Your task to perform on an android device: turn on bluetooth scan Image 0: 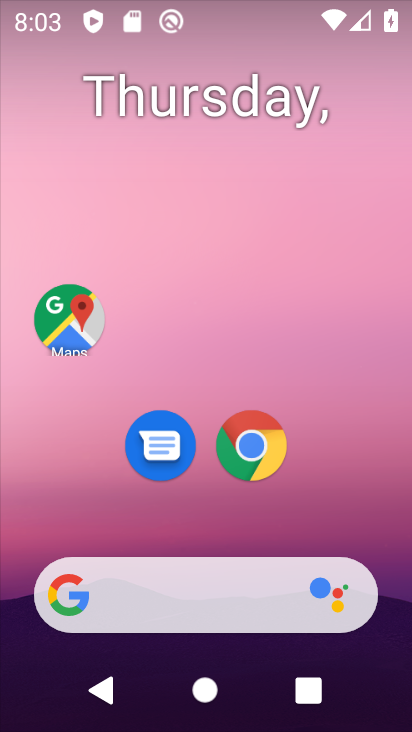
Step 0: drag from (359, 481) to (341, 12)
Your task to perform on an android device: turn on bluetooth scan Image 1: 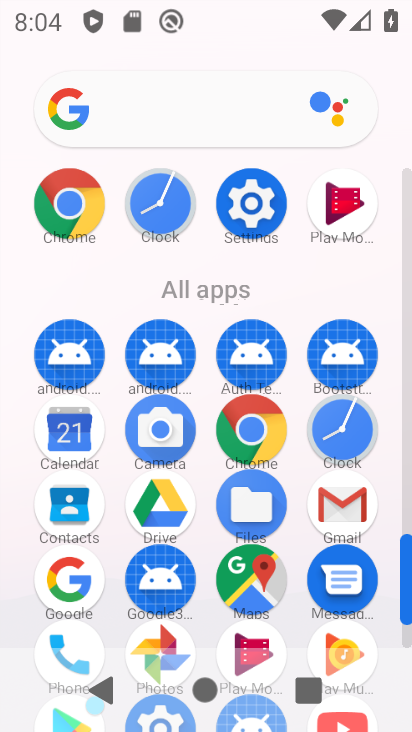
Step 1: click (252, 205)
Your task to perform on an android device: turn on bluetooth scan Image 2: 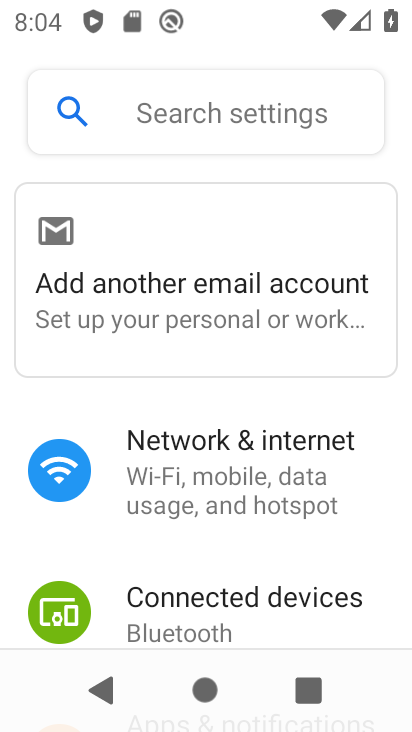
Step 2: drag from (384, 598) to (365, 176)
Your task to perform on an android device: turn on bluetooth scan Image 3: 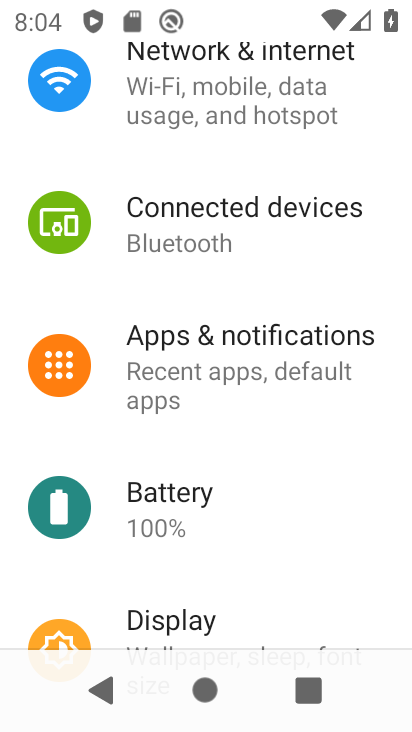
Step 3: drag from (373, 526) to (326, 187)
Your task to perform on an android device: turn on bluetooth scan Image 4: 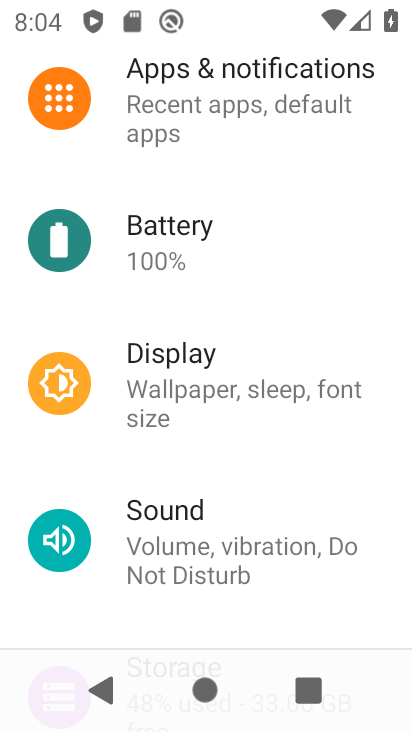
Step 4: drag from (377, 521) to (321, 185)
Your task to perform on an android device: turn on bluetooth scan Image 5: 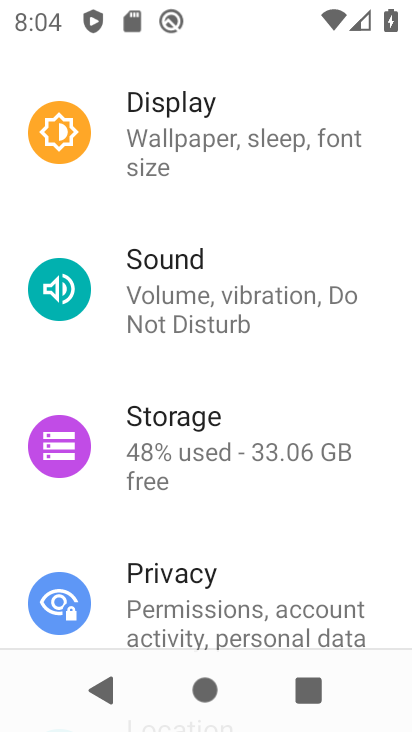
Step 5: drag from (358, 596) to (319, 221)
Your task to perform on an android device: turn on bluetooth scan Image 6: 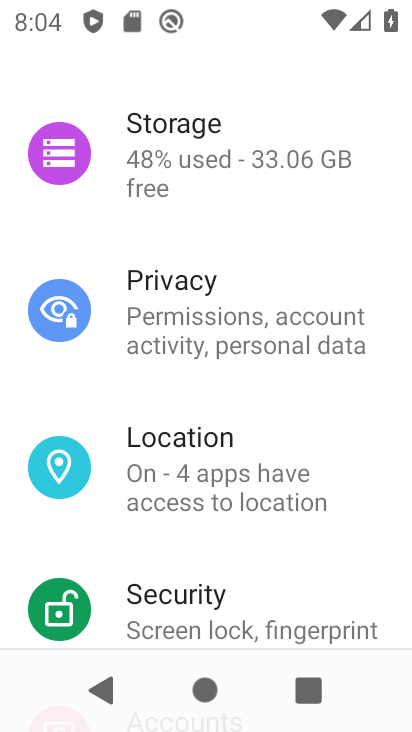
Step 6: click (152, 457)
Your task to perform on an android device: turn on bluetooth scan Image 7: 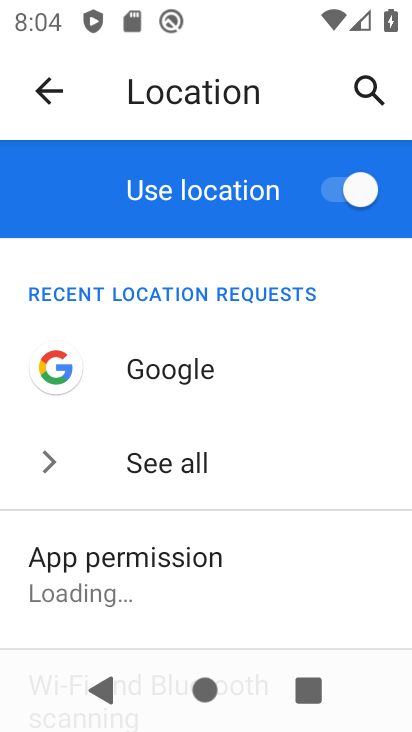
Step 7: drag from (317, 556) to (267, 112)
Your task to perform on an android device: turn on bluetooth scan Image 8: 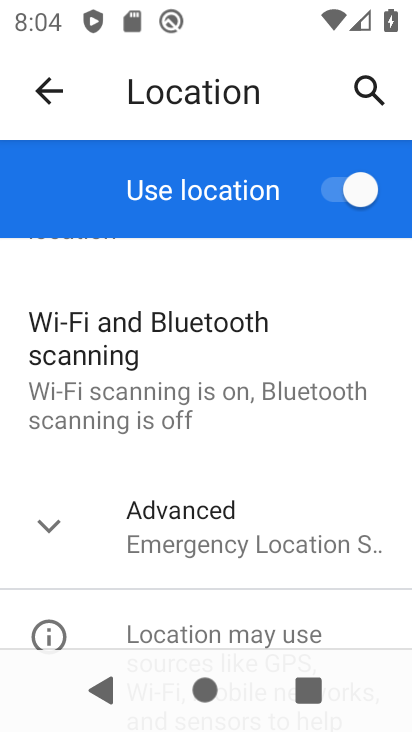
Step 8: click (114, 388)
Your task to perform on an android device: turn on bluetooth scan Image 9: 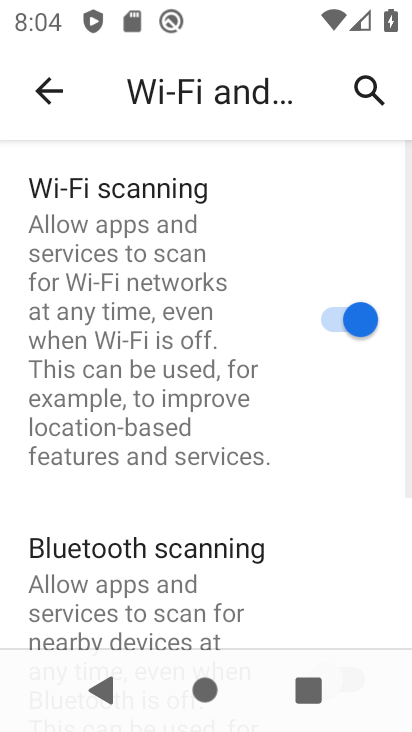
Step 9: drag from (297, 560) to (280, 352)
Your task to perform on an android device: turn on bluetooth scan Image 10: 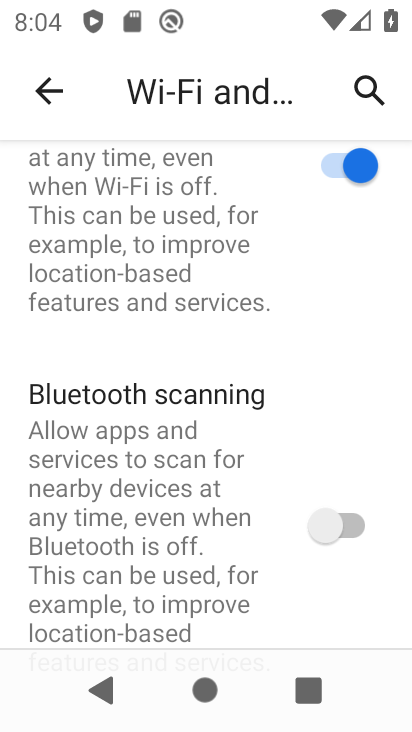
Step 10: click (322, 515)
Your task to perform on an android device: turn on bluetooth scan Image 11: 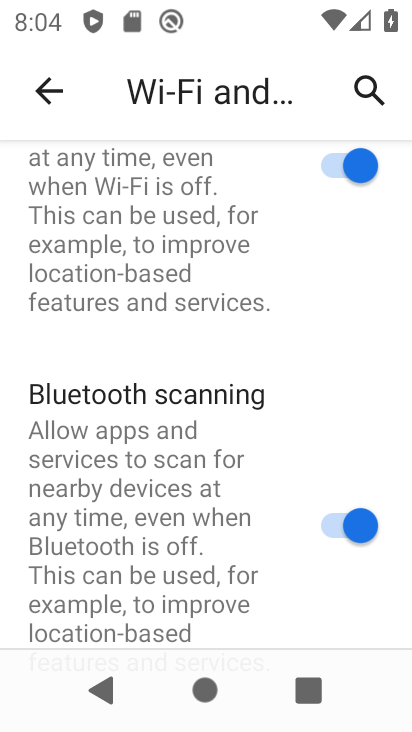
Step 11: task complete